Your task to perform on an android device: Open Wikipedia Image 0: 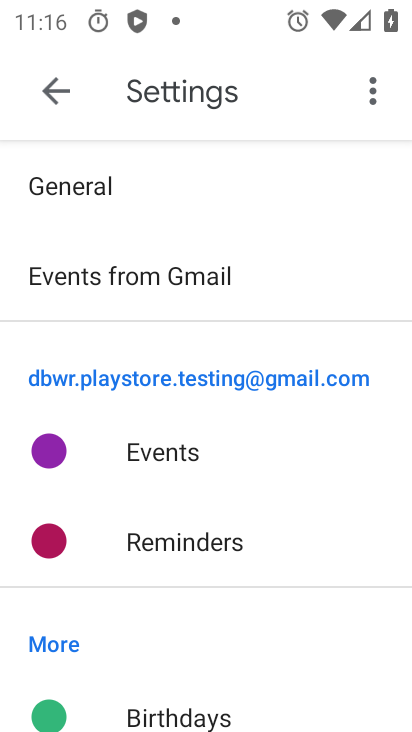
Step 0: press back button
Your task to perform on an android device: Open Wikipedia Image 1: 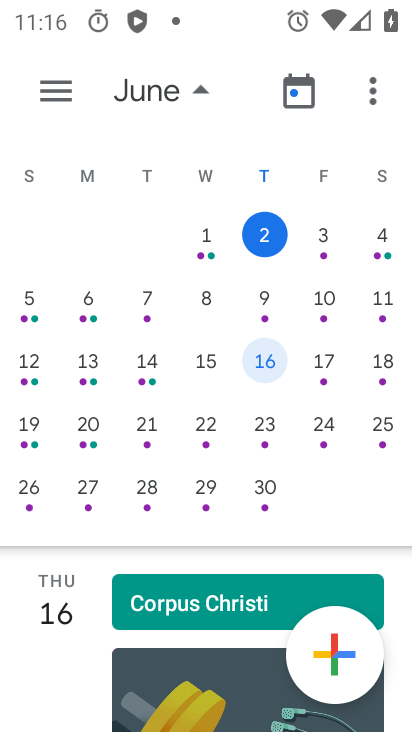
Step 1: press home button
Your task to perform on an android device: Open Wikipedia Image 2: 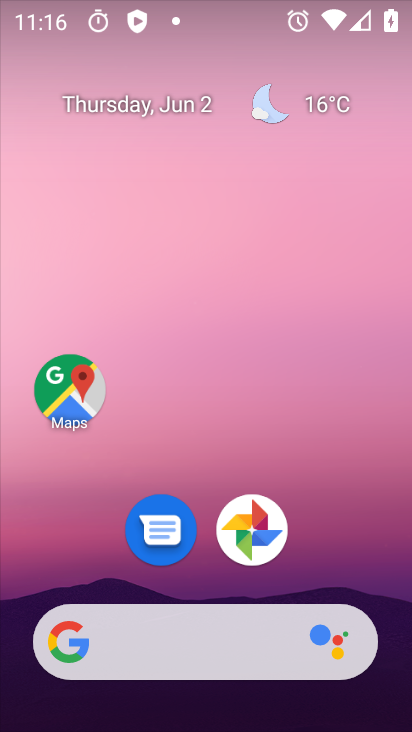
Step 2: drag from (250, 703) to (98, 57)
Your task to perform on an android device: Open Wikipedia Image 3: 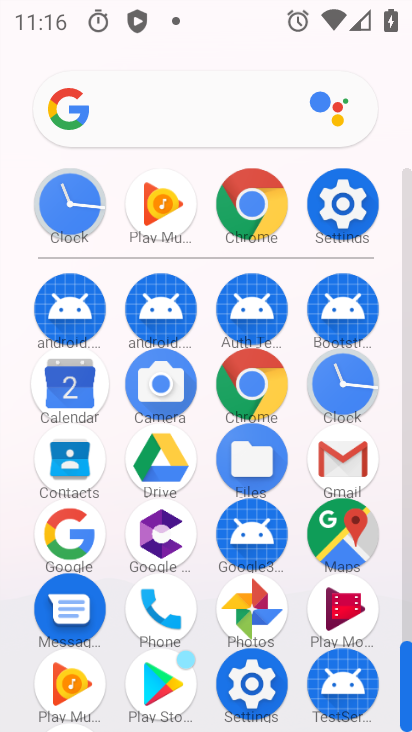
Step 3: click (258, 207)
Your task to perform on an android device: Open Wikipedia Image 4: 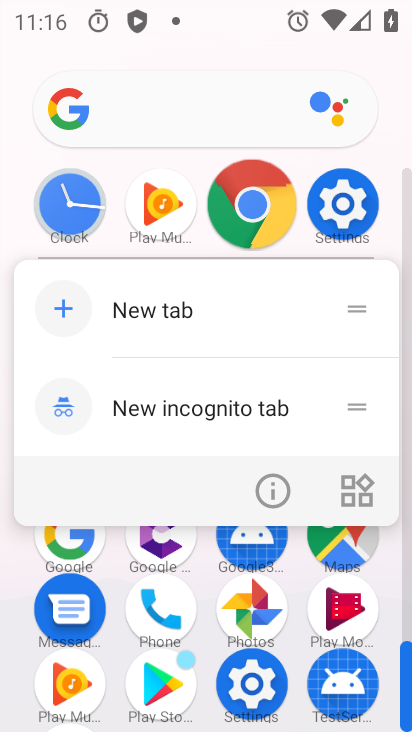
Step 4: click (249, 209)
Your task to perform on an android device: Open Wikipedia Image 5: 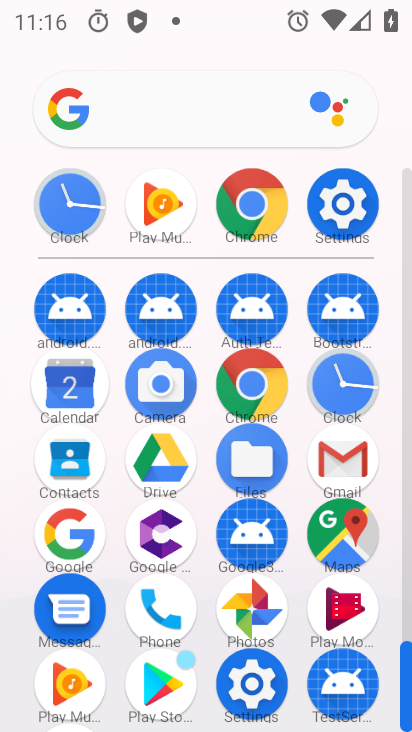
Step 5: click (337, 204)
Your task to perform on an android device: Open Wikipedia Image 6: 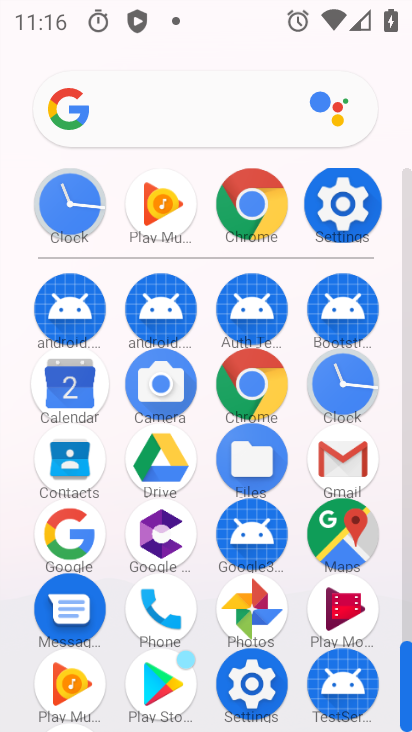
Step 6: click (339, 203)
Your task to perform on an android device: Open Wikipedia Image 7: 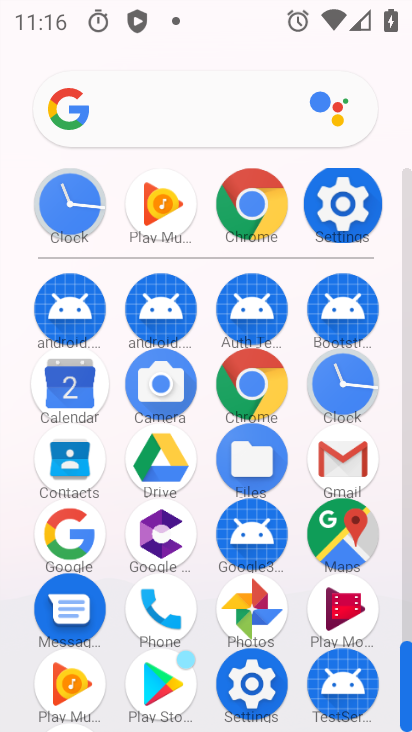
Step 7: click (337, 200)
Your task to perform on an android device: Open Wikipedia Image 8: 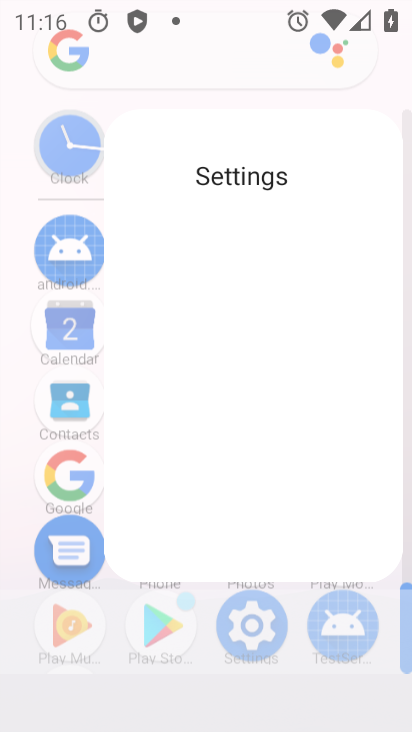
Step 8: click (337, 196)
Your task to perform on an android device: Open Wikipedia Image 9: 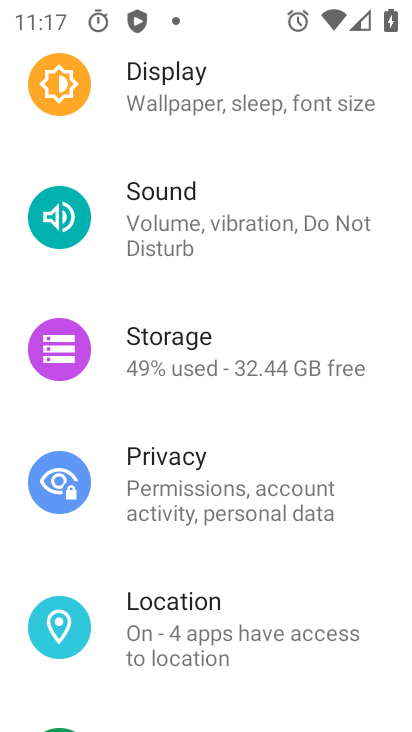
Step 9: press home button
Your task to perform on an android device: Open Wikipedia Image 10: 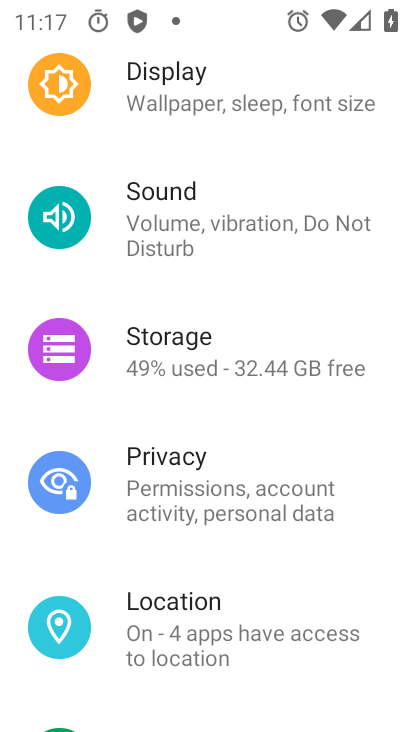
Step 10: press home button
Your task to perform on an android device: Open Wikipedia Image 11: 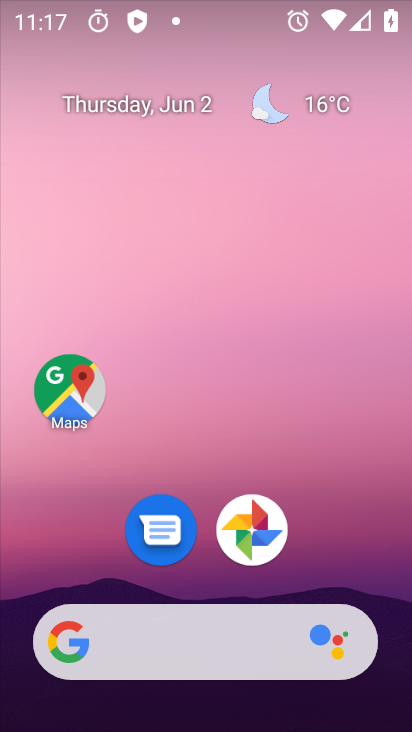
Step 11: drag from (244, 678) to (128, 167)
Your task to perform on an android device: Open Wikipedia Image 12: 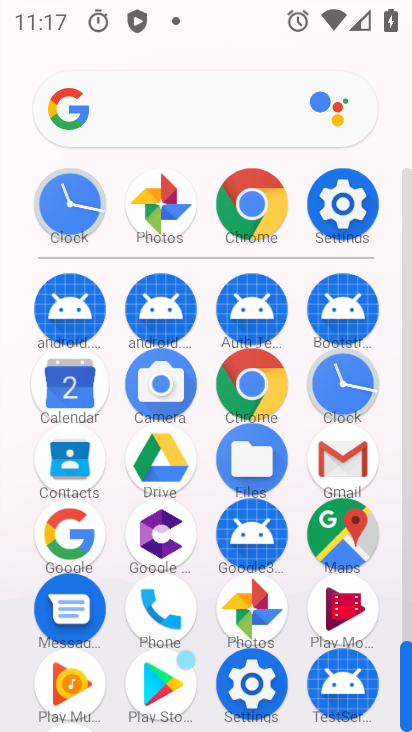
Step 12: click (251, 678)
Your task to perform on an android device: Open Wikipedia Image 13: 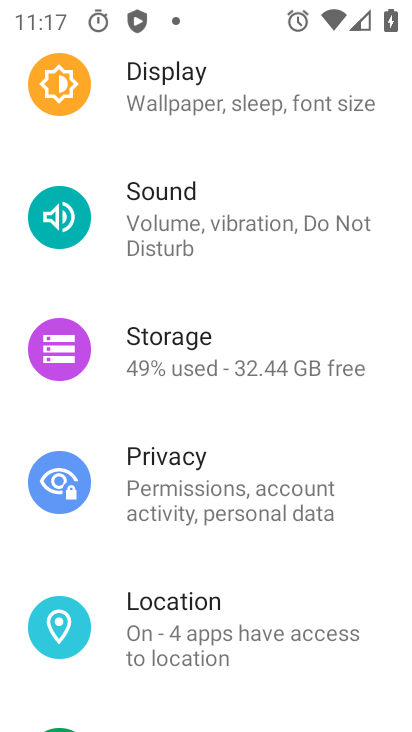
Step 13: press back button
Your task to perform on an android device: Open Wikipedia Image 14: 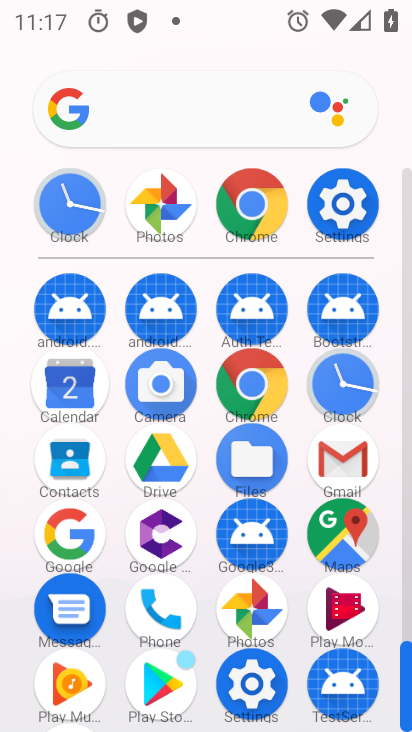
Step 14: click (237, 218)
Your task to perform on an android device: Open Wikipedia Image 15: 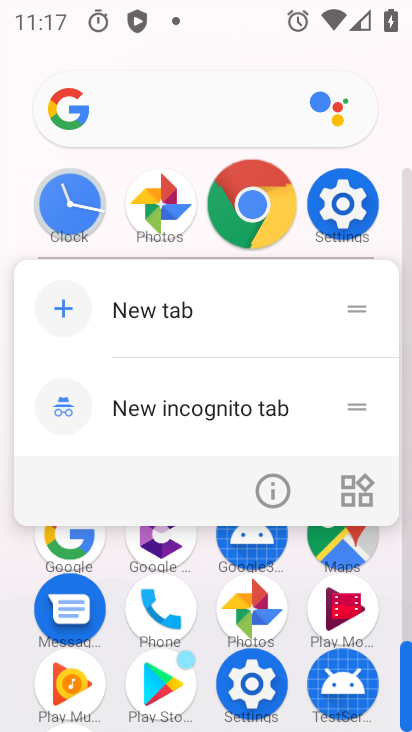
Step 15: click (239, 218)
Your task to perform on an android device: Open Wikipedia Image 16: 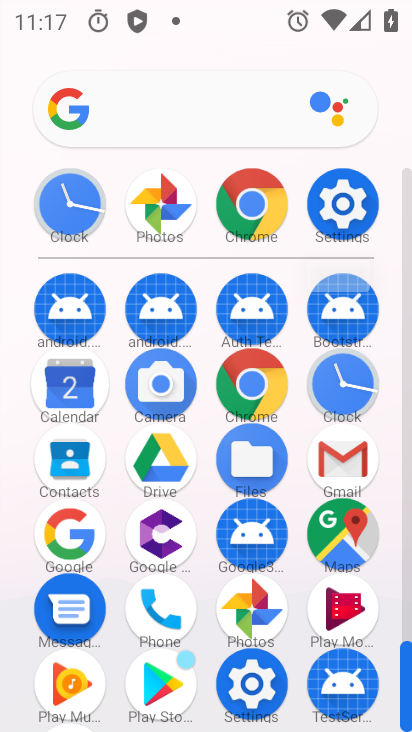
Step 16: click (239, 218)
Your task to perform on an android device: Open Wikipedia Image 17: 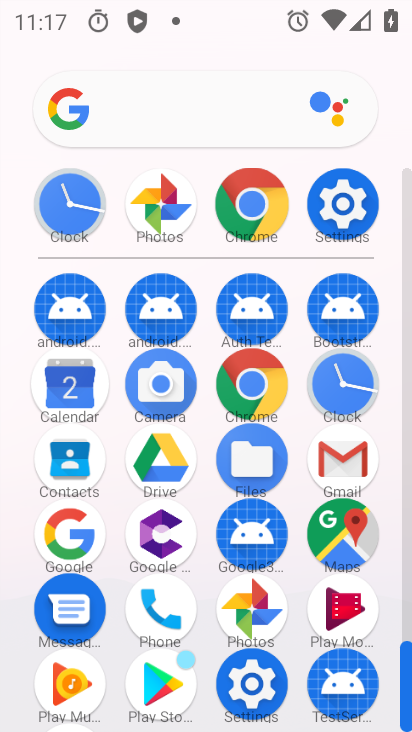
Step 17: click (239, 215)
Your task to perform on an android device: Open Wikipedia Image 18: 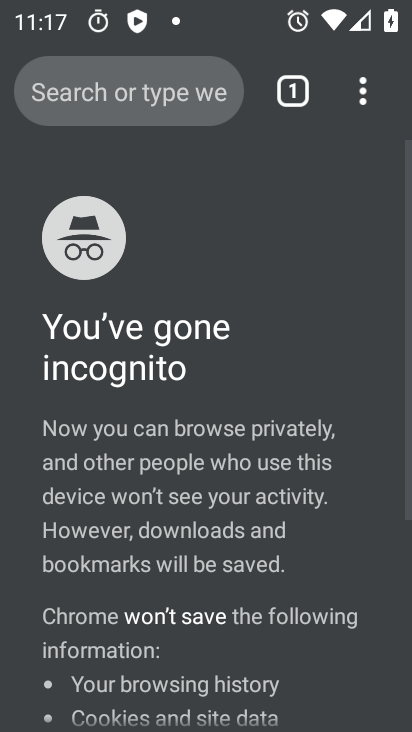
Step 18: click (238, 220)
Your task to perform on an android device: Open Wikipedia Image 19: 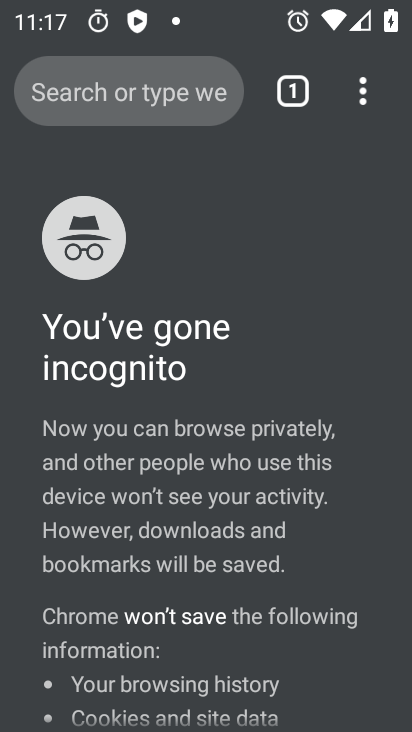
Step 19: drag from (366, 90) to (82, 184)
Your task to perform on an android device: Open Wikipedia Image 20: 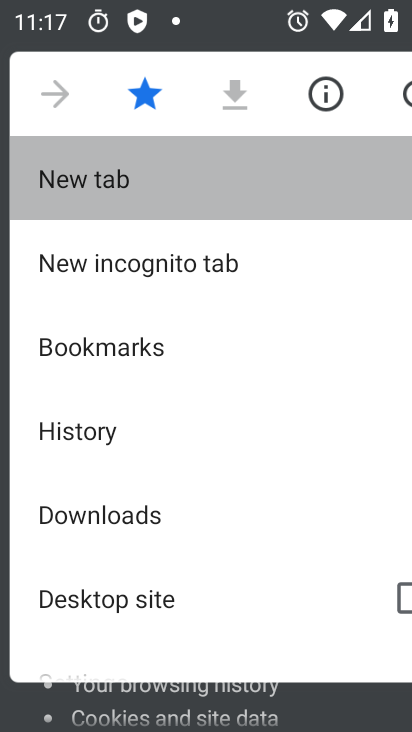
Step 20: click (82, 184)
Your task to perform on an android device: Open Wikipedia Image 21: 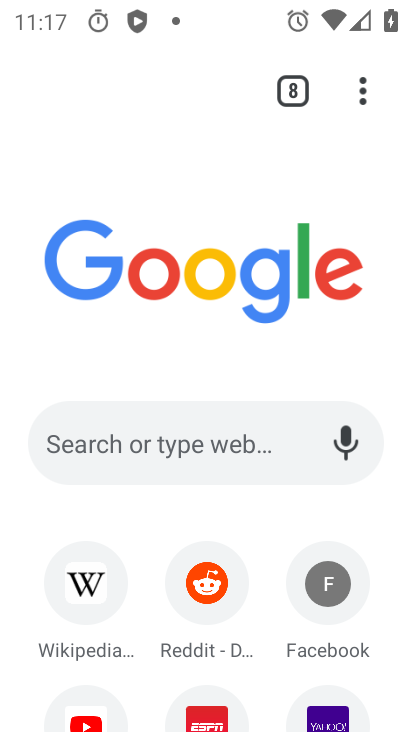
Step 21: click (90, 583)
Your task to perform on an android device: Open Wikipedia Image 22: 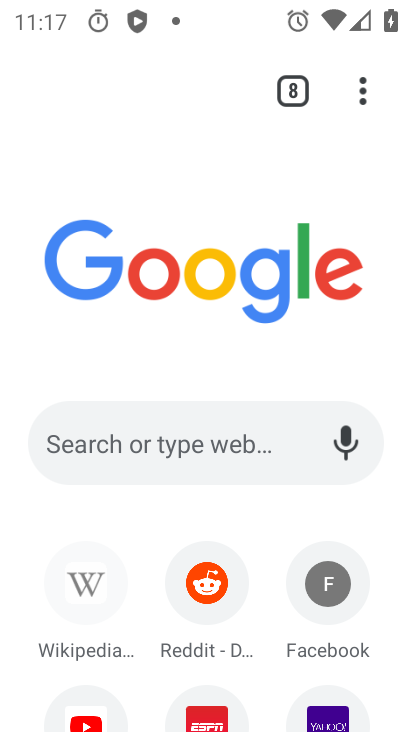
Step 22: click (87, 570)
Your task to perform on an android device: Open Wikipedia Image 23: 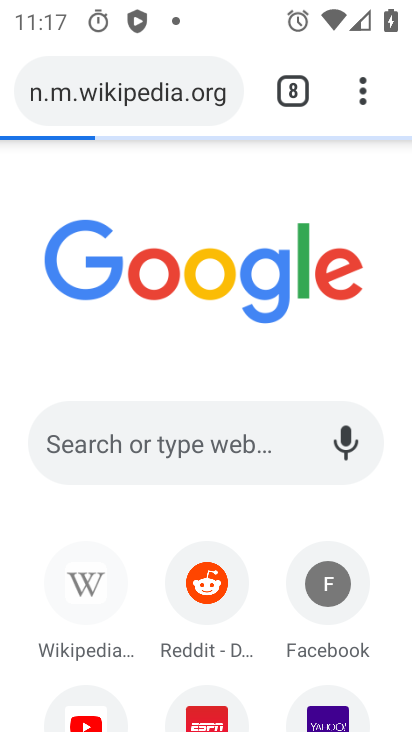
Step 23: click (87, 570)
Your task to perform on an android device: Open Wikipedia Image 24: 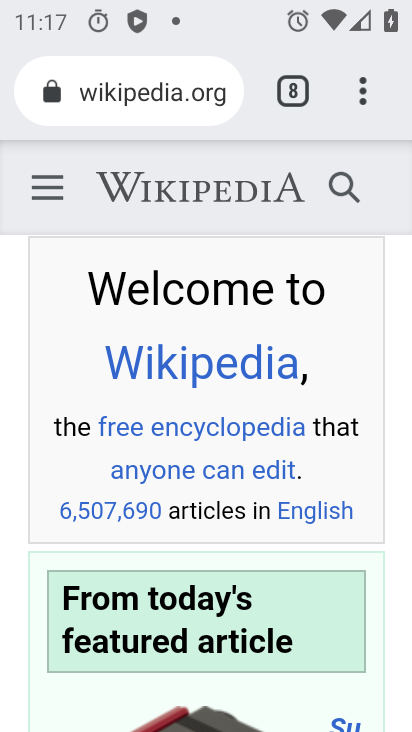
Step 24: task complete